Your task to perform on an android device: open app "Facebook Messenger" (install if not already installed) and enter user name: "divorce@inbox.com" and password: "caviar" Image 0: 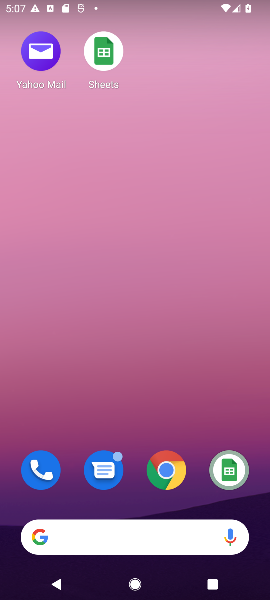
Step 0: drag from (113, 520) to (208, 141)
Your task to perform on an android device: open app "Facebook Messenger" (install if not already installed) and enter user name: "divorce@inbox.com" and password: "caviar" Image 1: 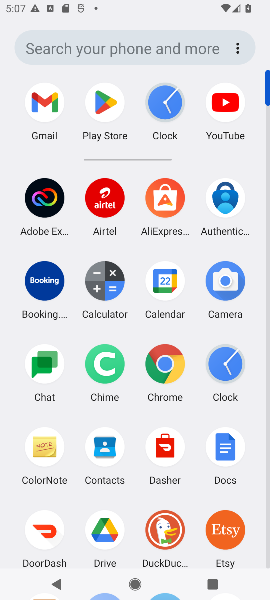
Step 1: click (105, 108)
Your task to perform on an android device: open app "Facebook Messenger" (install if not already installed) and enter user name: "divorce@inbox.com" and password: "caviar" Image 2: 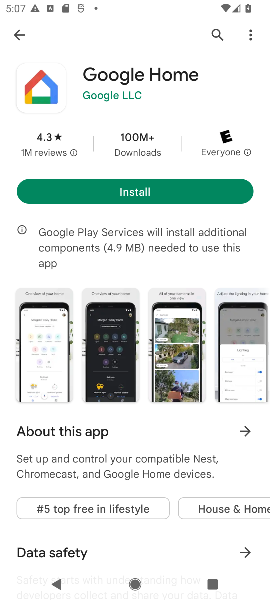
Step 2: click (13, 34)
Your task to perform on an android device: open app "Facebook Messenger" (install if not already installed) and enter user name: "divorce@inbox.com" and password: "caviar" Image 3: 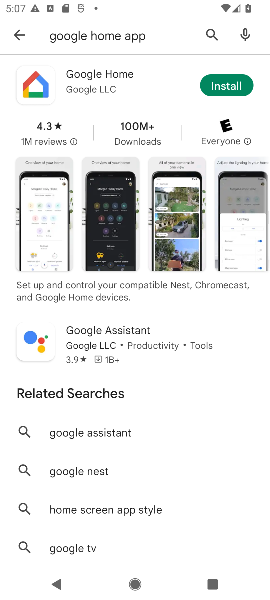
Step 3: click (26, 32)
Your task to perform on an android device: open app "Facebook Messenger" (install if not already installed) and enter user name: "divorce@inbox.com" and password: "caviar" Image 4: 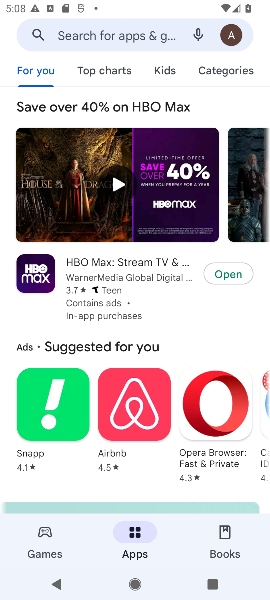
Step 4: click (98, 36)
Your task to perform on an android device: open app "Facebook Messenger" (install if not already installed) and enter user name: "divorce@inbox.com" and password: "caviar" Image 5: 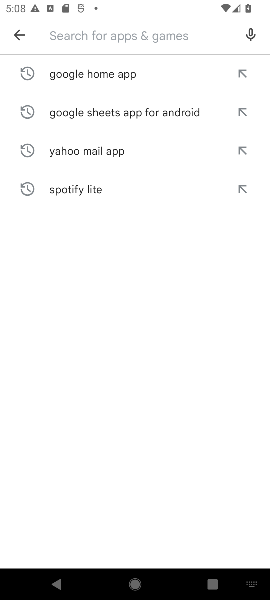
Step 5: type "Facebook Messenger "
Your task to perform on an android device: open app "Facebook Messenger" (install if not already installed) and enter user name: "divorce@inbox.com" and password: "caviar" Image 6: 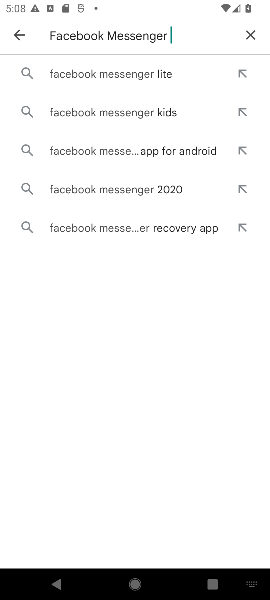
Step 6: click (144, 82)
Your task to perform on an android device: open app "Facebook Messenger" (install if not already installed) and enter user name: "divorce@inbox.com" and password: "caviar" Image 7: 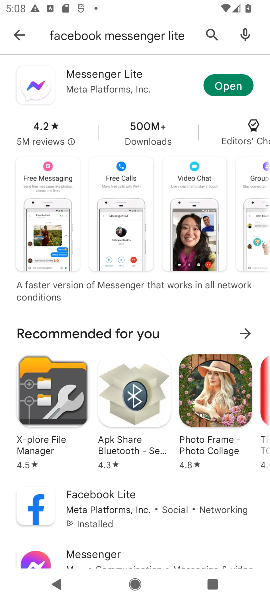
Step 7: click (244, 86)
Your task to perform on an android device: open app "Facebook Messenger" (install if not already installed) and enter user name: "divorce@inbox.com" and password: "caviar" Image 8: 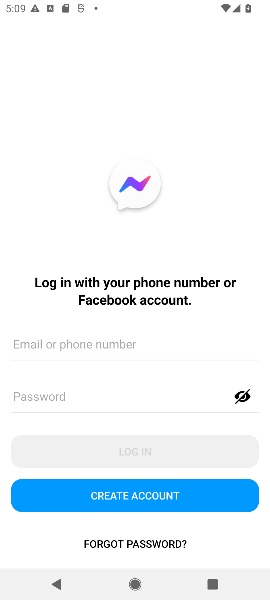
Step 8: task complete